Your task to perform on an android device: Open Wikipedia Image 0: 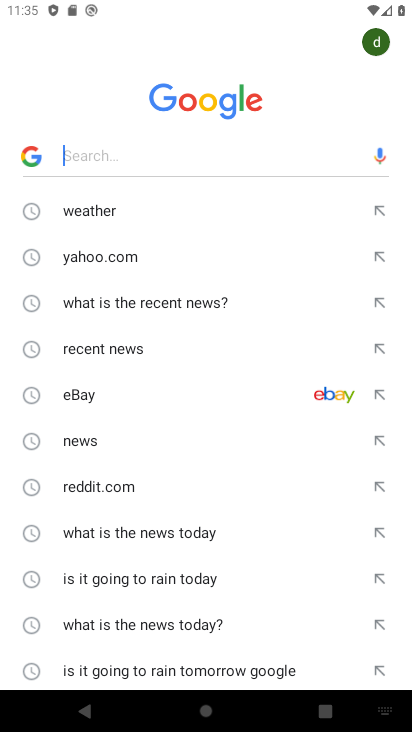
Step 0: press back button
Your task to perform on an android device: Open Wikipedia Image 1: 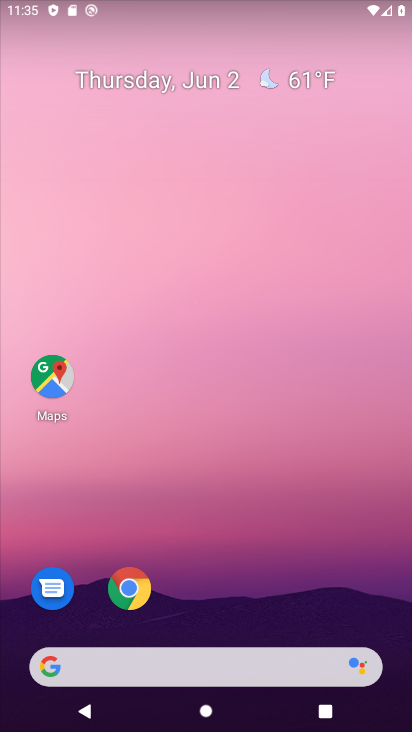
Step 1: drag from (153, 608) to (286, 73)
Your task to perform on an android device: Open Wikipedia Image 2: 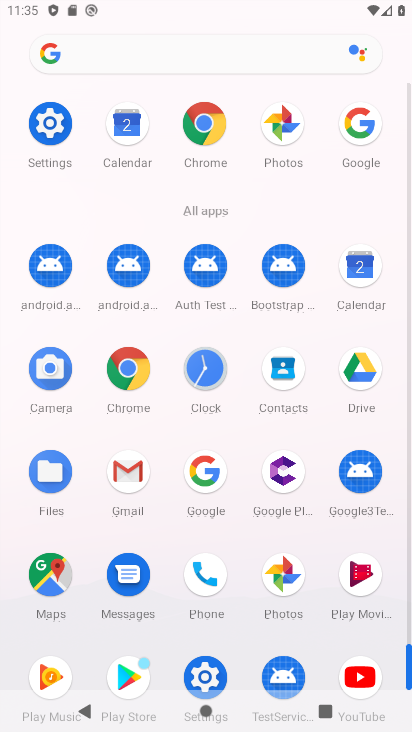
Step 2: click (145, 384)
Your task to perform on an android device: Open Wikipedia Image 3: 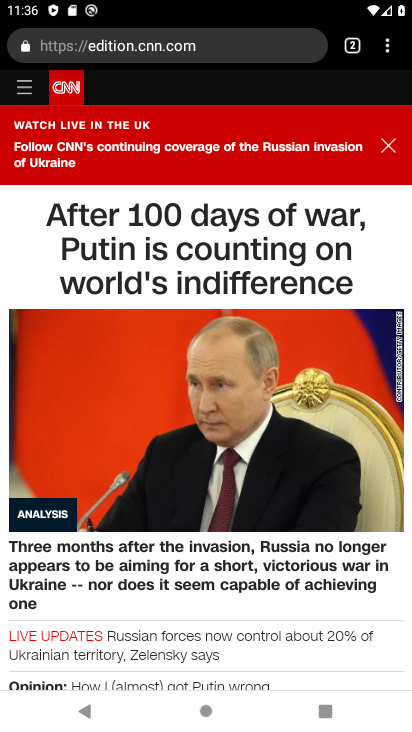
Step 3: click (359, 45)
Your task to perform on an android device: Open Wikipedia Image 4: 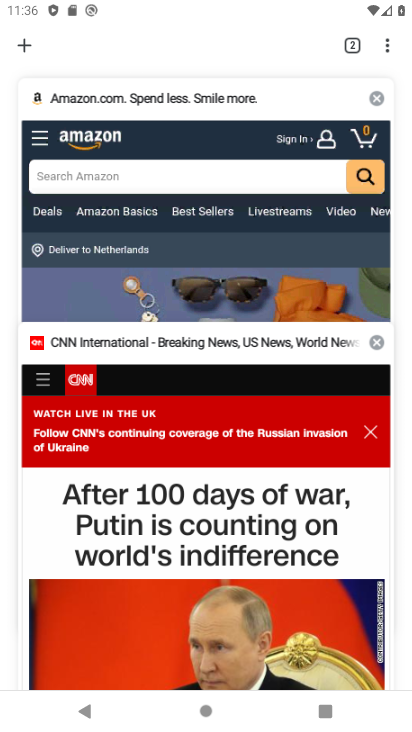
Step 4: click (19, 53)
Your task to perform on an android device: Open Wikipedia Image 5: 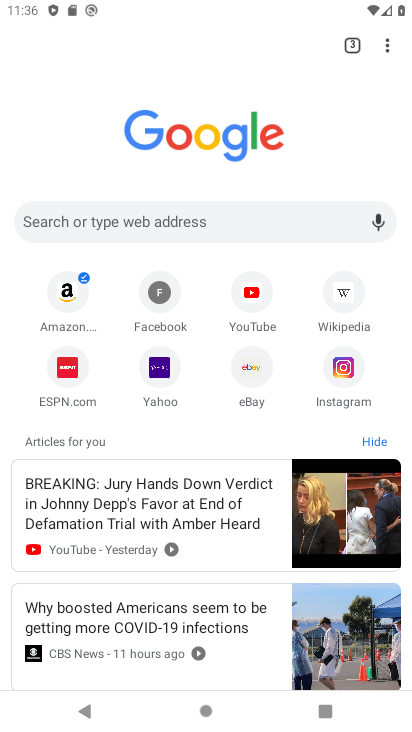
Step 5: click (360, 303)
Your task to perform on an android device: Open Wikipedia Image 6: 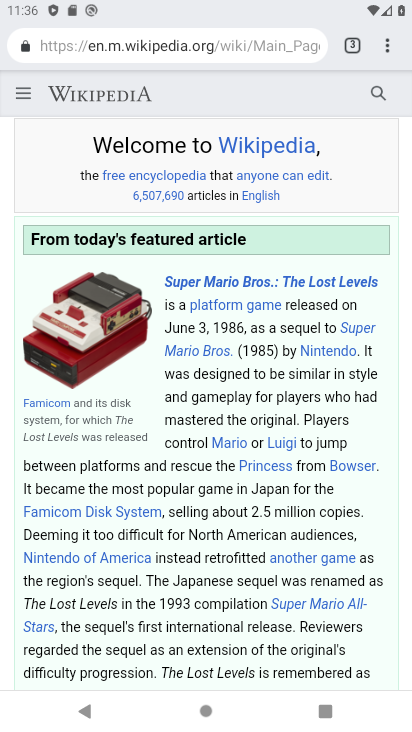
Step 6: task complete